Your task to perform on an android device: What's the weather going to be tomorrow? Image 0: 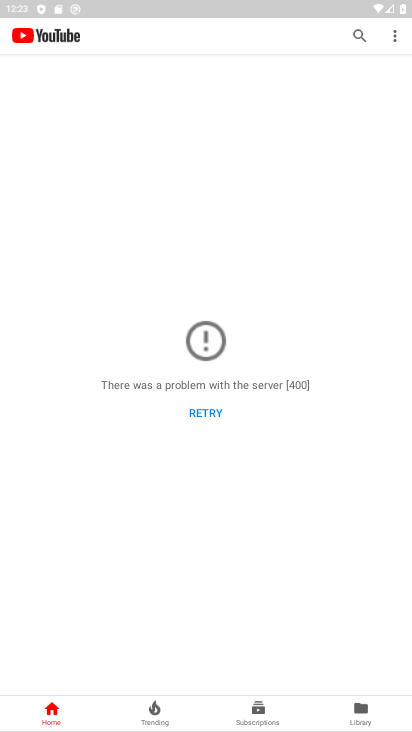
Step 0: press back button
Your task to perform on an android device: What's the weather going to be tomorrow? Image 1: 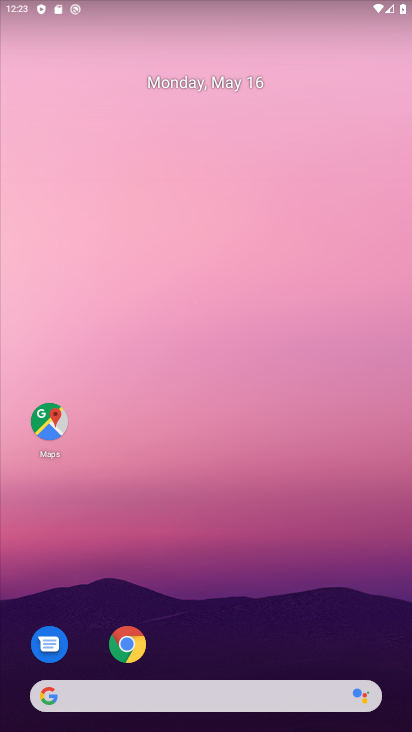
Step 1: drag from (71, 286) to (397, 264)
Your task to perform on an android device: What's the weather going to be tomorrow? Image 2: 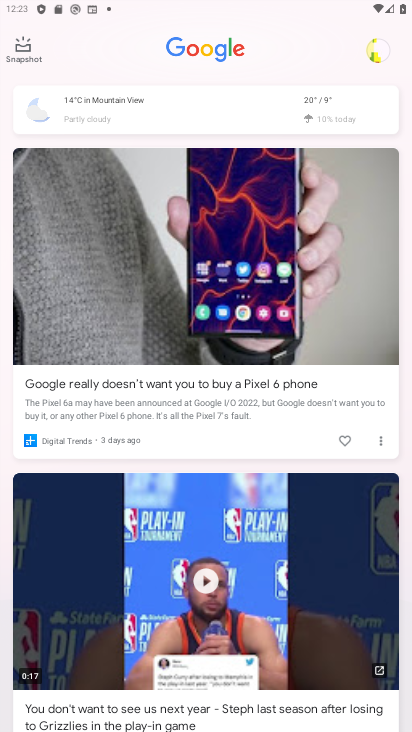
Step 2: click (119, 105)
Your task to perform on an android device: What's the weather going to be tomorrow? Image 3: 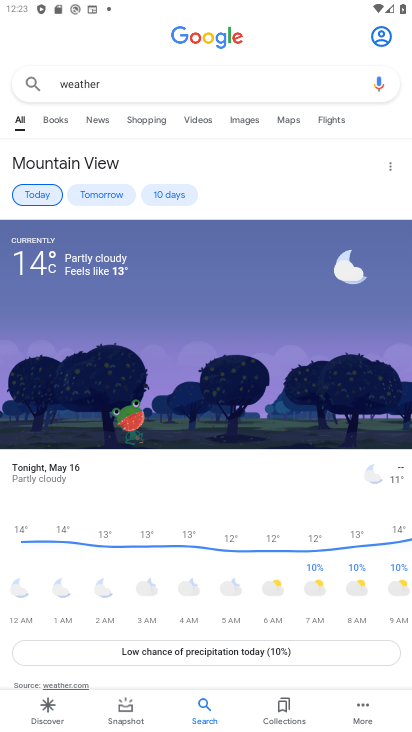
Step 3: click (84, 200)
Your task to perform on an android device: What's the weather going to be tomorrow? Image 4: 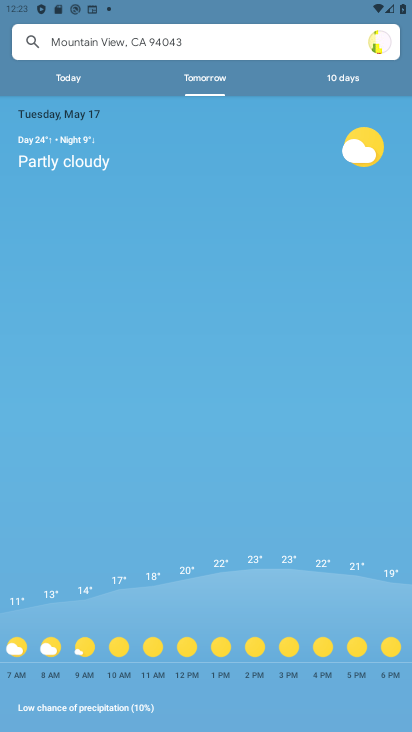
Step 4: task complete